Your task to perform on an android device: show emergency info Image 0: 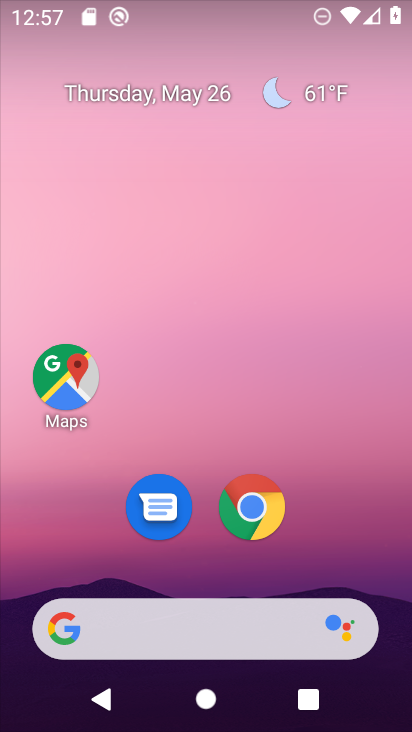
Step 0: drag from (374, 552) to (189, 29)
Your task to perform on an android device: show emergency info Image 1: 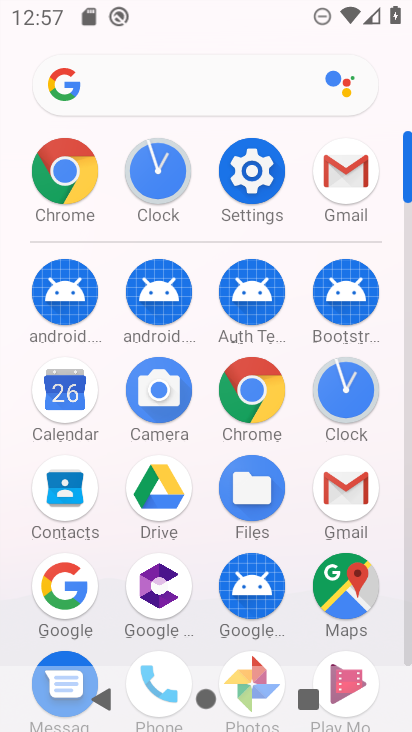
Step 1: click (260, 184)
Your task to perform on an android device: show emergency info Image 2: 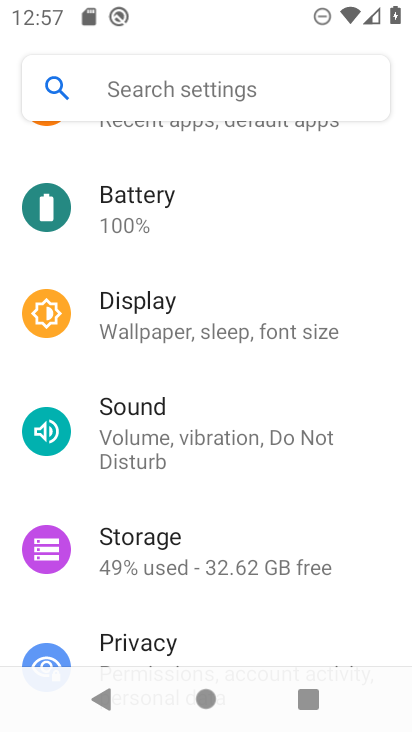
Step 2: drag from (144, 515) to (109, 365)
Your task to perform on an android device: show emergency info Image 3: 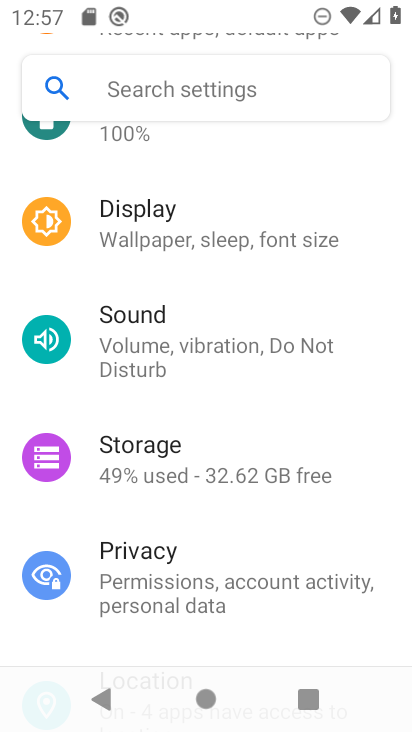
Step 3: click (141, 166)
Your task to perform on an android device: show emergency info Image 4: 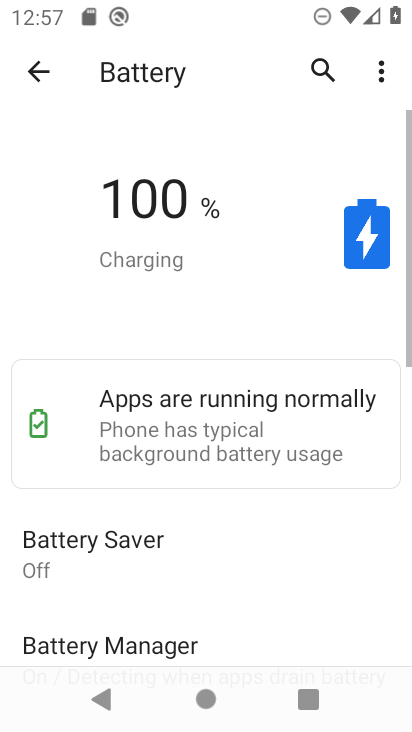
Step 4: task complete